Your task to perform on an android device: turn on sleep mode Image 0: 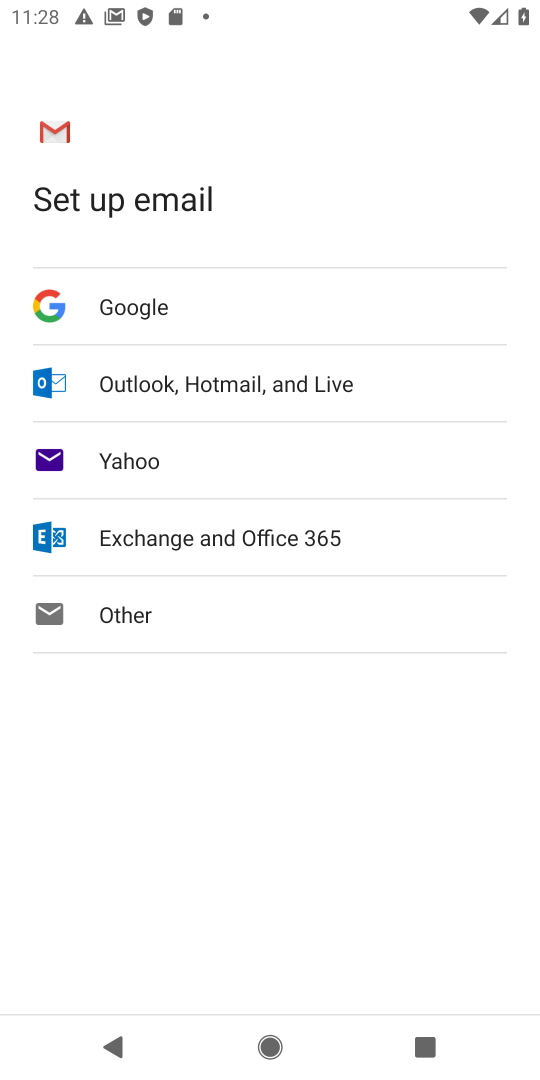
Step 0: press home button
Your task to perform on an android device: turn on sleep mode Image 1: 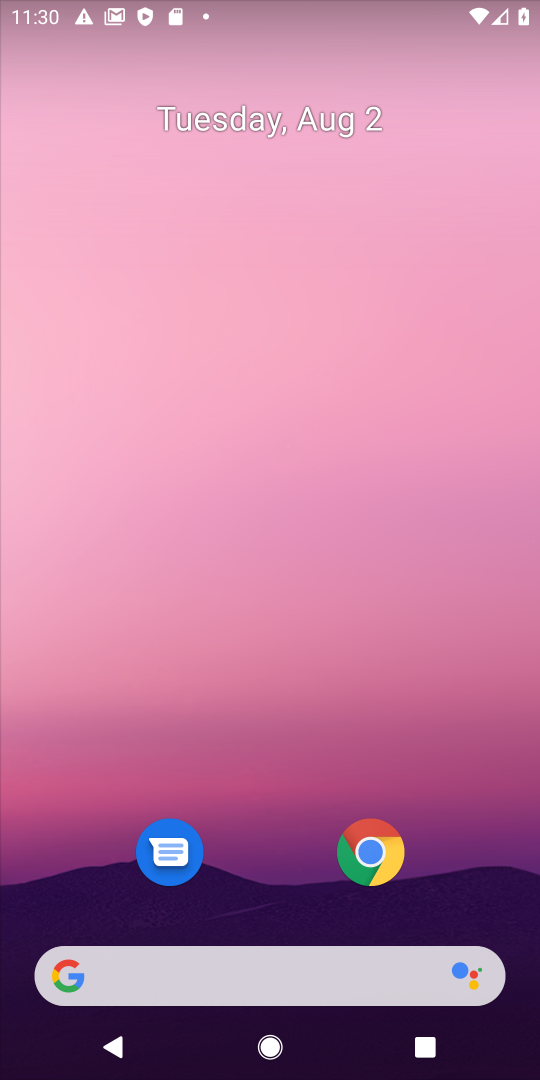
Step 1: drag from (468, 893) to (312, 181)
Your task to perform on an android device: turn on sleep mode Image 2: 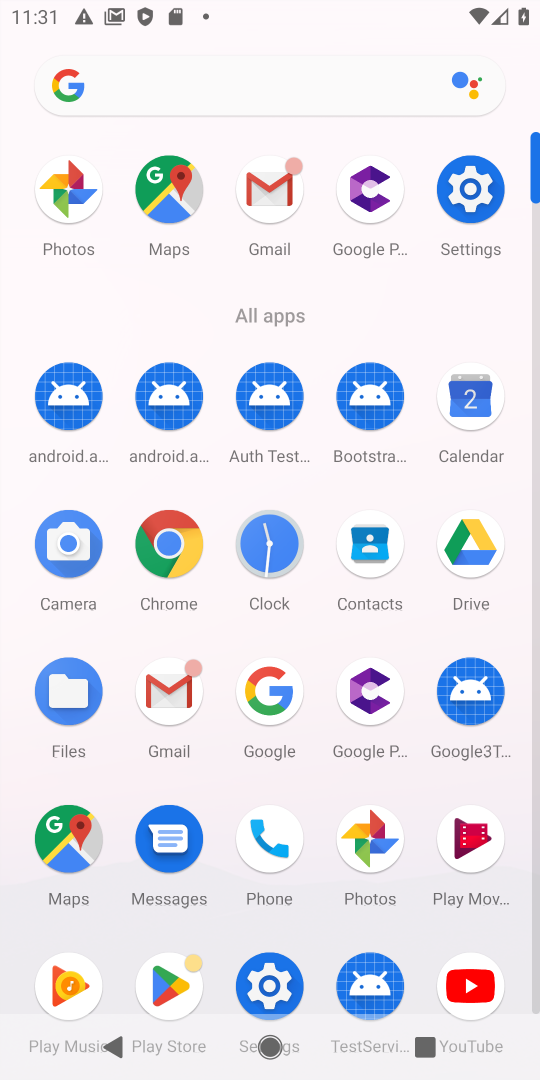
Step 2: click (279, 972)
Your task to perform on an android device: turn on sleep mode Image 3: 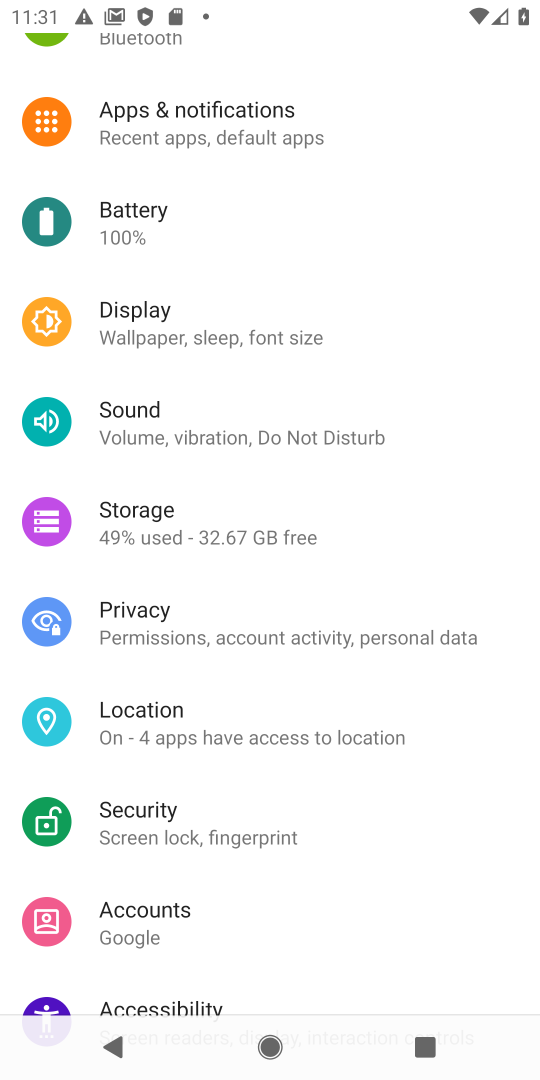
Step 3: task complete